Your task to perform on an android device: set default search engine in the chrome app Image 0: 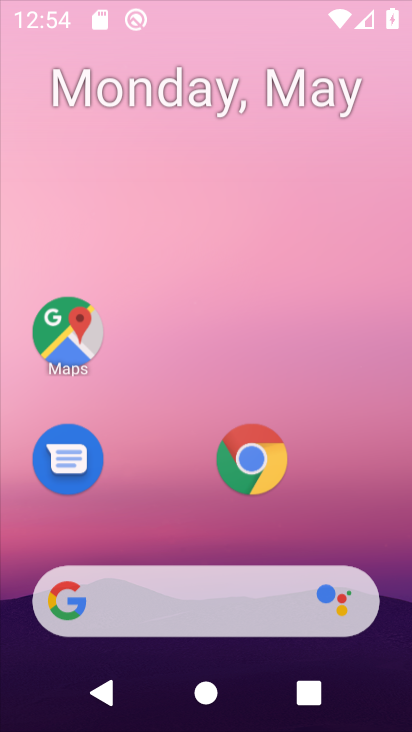
Step 0: click (308, 395)
Your task to perform on an android device: set default search engine in the chrome app Image 1: 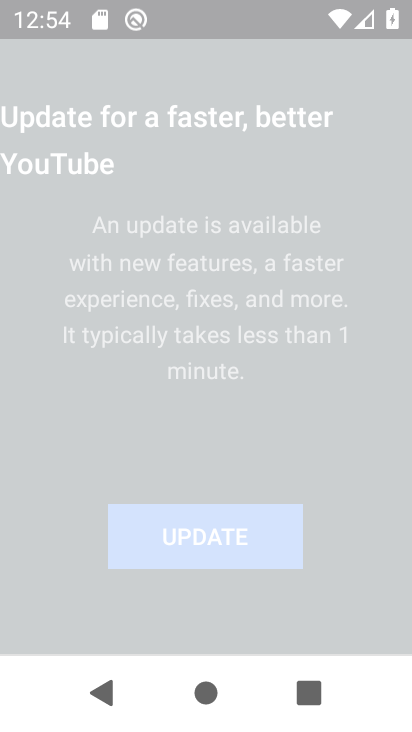
Step 1: drag from (190, 533) to (188, 127)
Your task to perform on an android device: set default search engine in the chrome app Image 2: 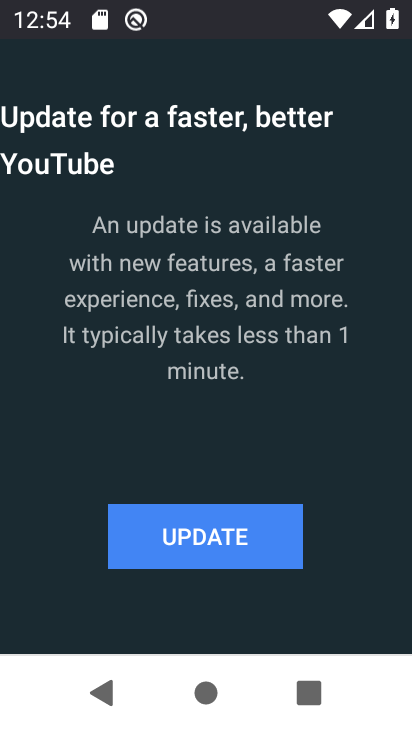
Step 2: press home button
Your task to perform on an android device: set default search engine in the chrome app Image 3: 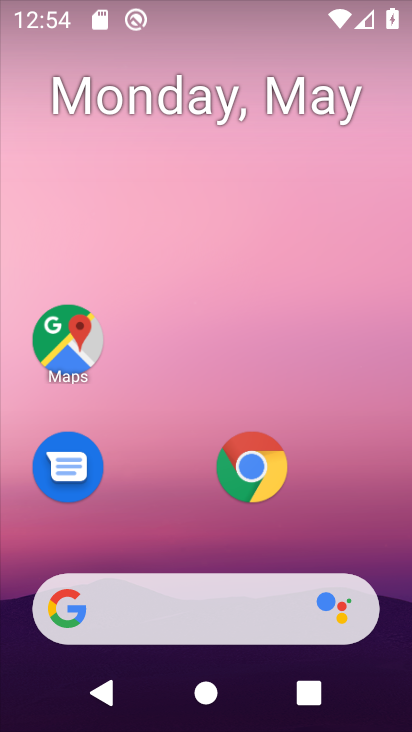
Step 3: drag from (178, 510) to (180, 153)
Your task to perform on an android device: set default search engine in the chrome app Image 4: 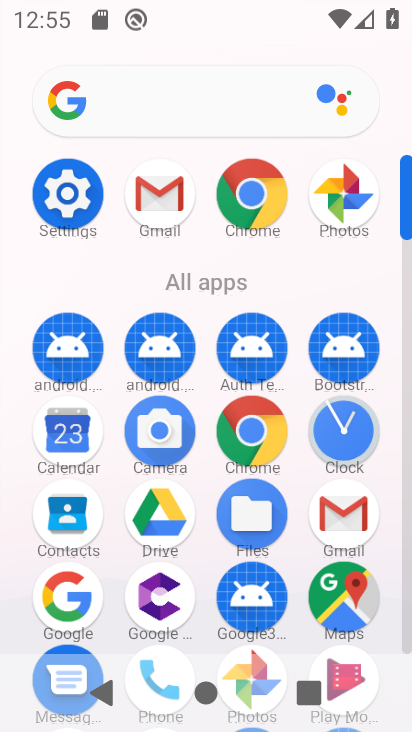
Step 4: click (246, 202)
Your task to perform on an android device: set default search engine in the chrome app Image 5: 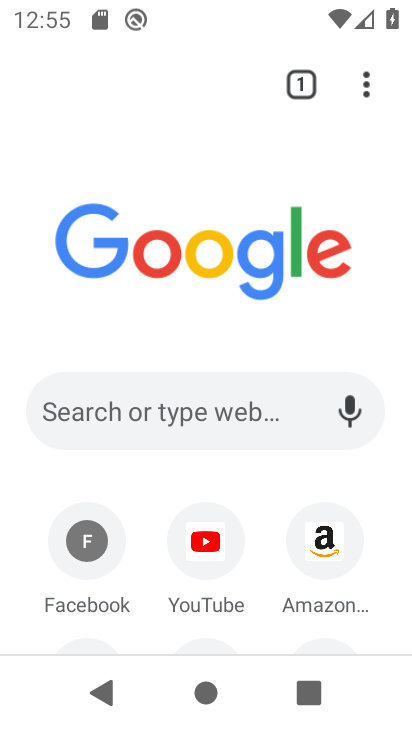
Step 5: drag from (273, 527) to (274, 237)
Your task to perform on an android device: set default search engine in the chrome app Image 6: 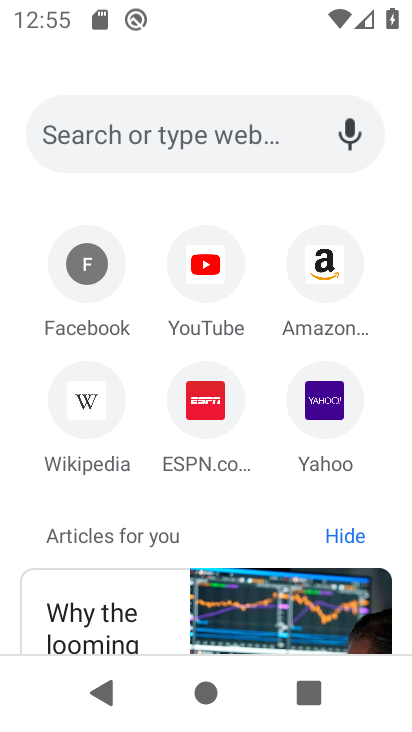
Step 6: drag from (279, 83) to (274, 502)
Your task to perform on an android device: set default search engine in the chrome app Image 7: 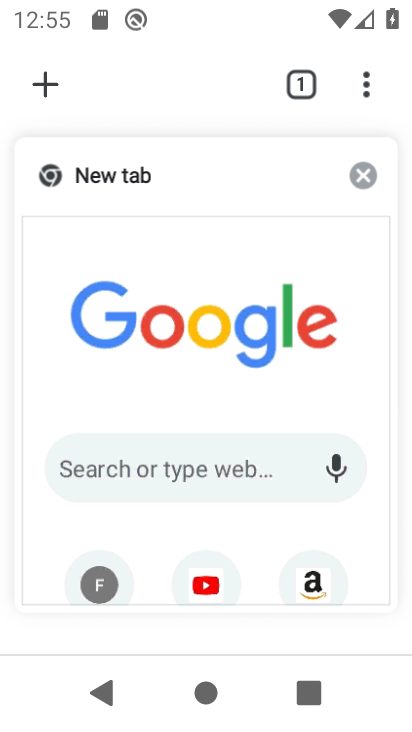
Step 7: click (242, 222)
Your task to perform on an android device: set default search engine in the chrome app Image 8: 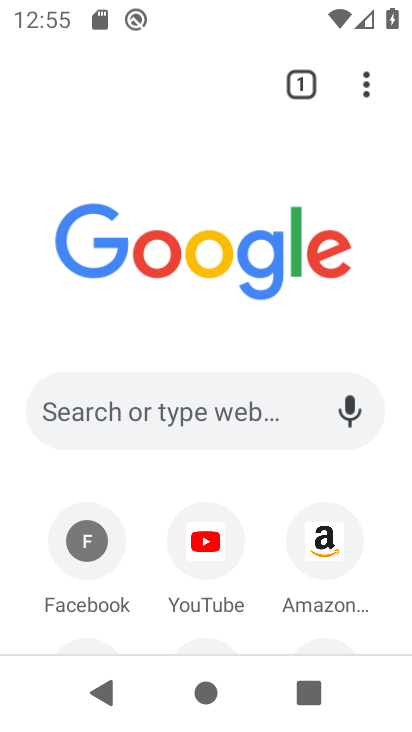
Step 8: click (364, 76)
Your task to perform on an android device: set default search engine in the chrome app Image 9: 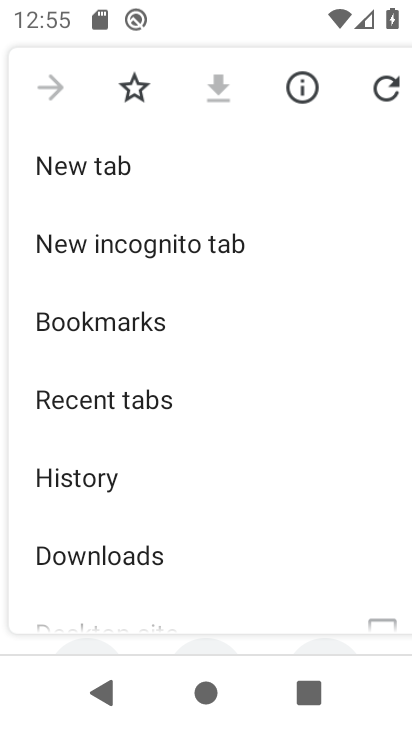
Step 9: drag from (233, 551) to (260, 217)
Your task to perform on an android device: set default search engine in the chrome app Image 10: 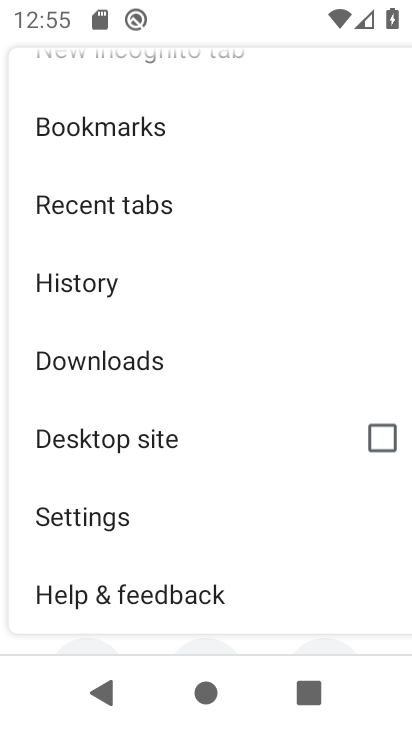
Step 10: drag from (199, 458) to (256, 218)
Your task to perform on an android device: set default search engine in the chrome app Image 11: 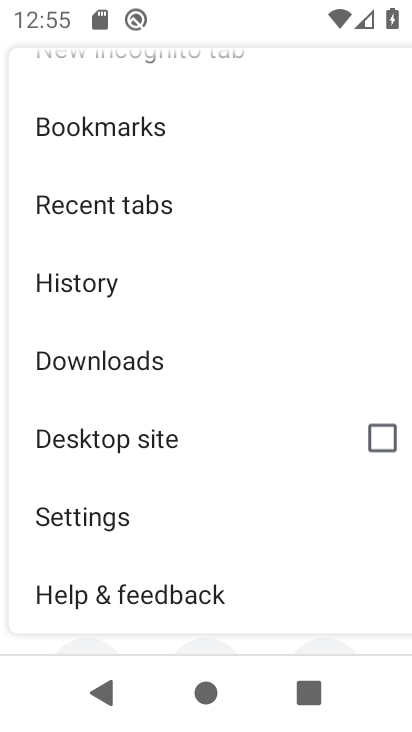
Step 11: click (117, 511)
Your task to perform on an android device: set default search engine in the chrome app Image 12: 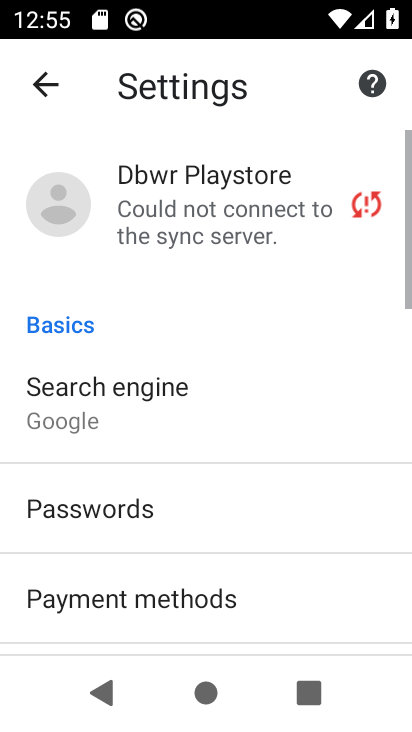
Step 12: click (120, 390)
Your task to perform on an android device: set default search engine in the chrome app Image 13: 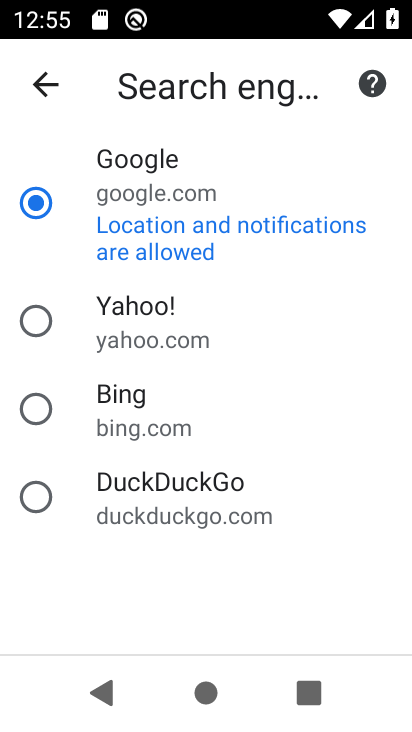
Step 13: drag from (226, 568) to (318, 292)
Your task to perform on an android device: set default search engine in the chrome app Image 14: 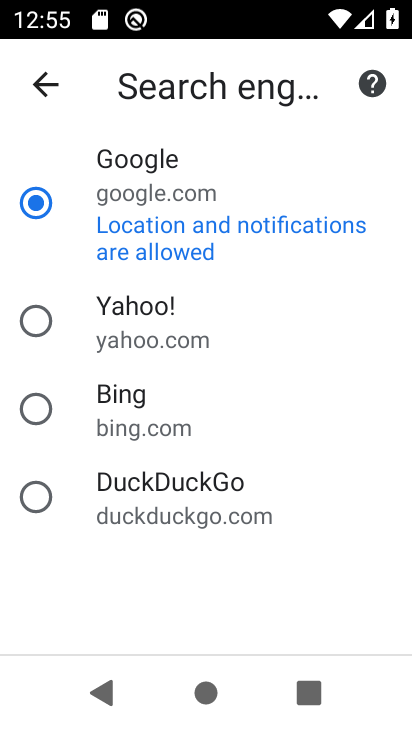
Step 14: drag from (208, 580) to (257, 362)
Your task to perform on an android device: set default search engine in the chrome app Image 15: 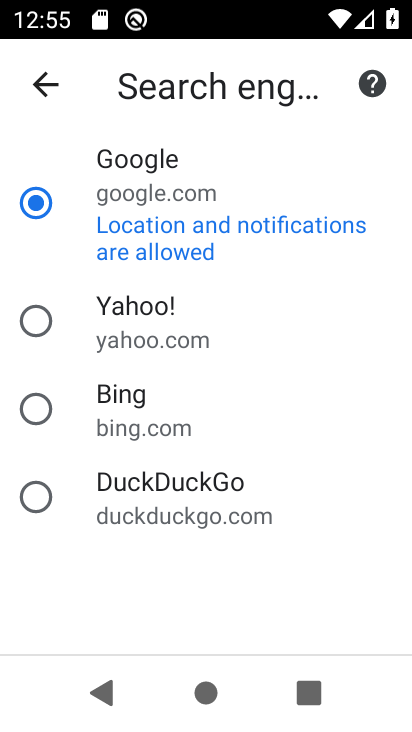
Step 15: drag from (299, 506) to (338, 318)
Your task to perform on an android device: set default search engine in the chrome app Image 16: 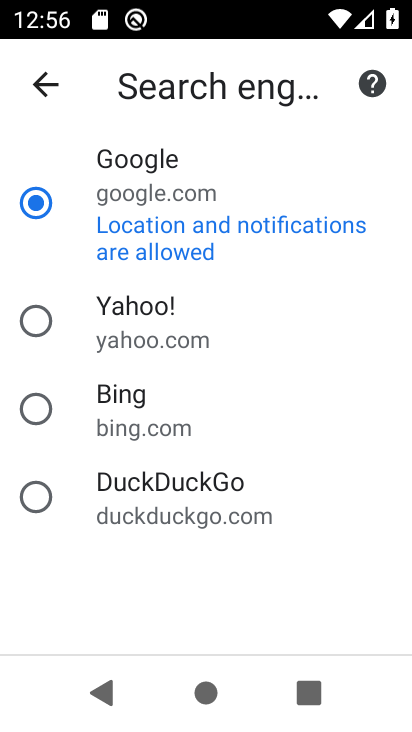
Step 16: drag from (219, 574) to (220, 272)
Your task to perform on an android device: set default search engine in the chrome app Image 17: 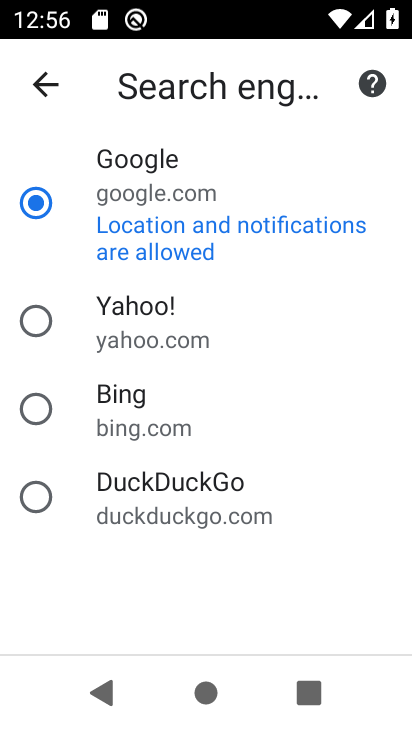
Step 17: drag from (240, 574) to (285, 259)
Your task to perform on an android device: set default search engine in the chrome app Image 18: 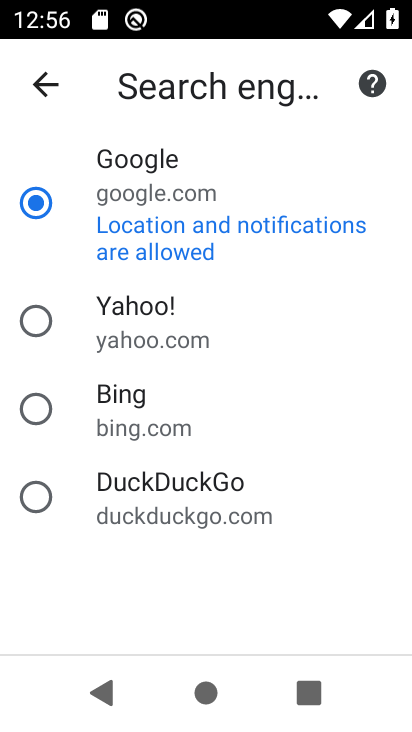
Step 18: click (114, 490)
Your task to perform on an android device: set default search engine in the chrome app Image 19: 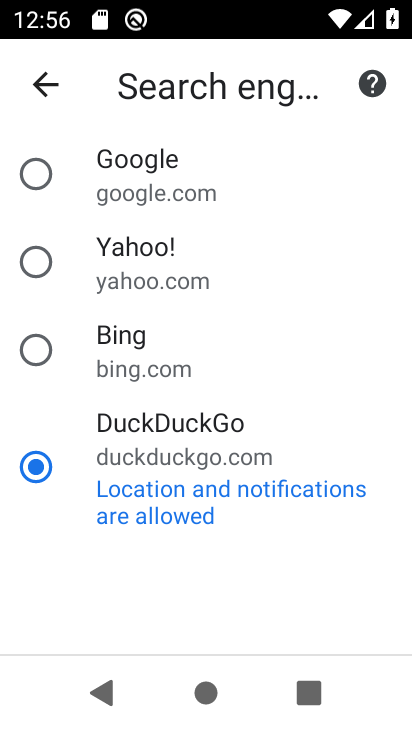
Step 19: click (85, 205)
Your task to perform on an android device: set default search engine in the chrome app Image 20: 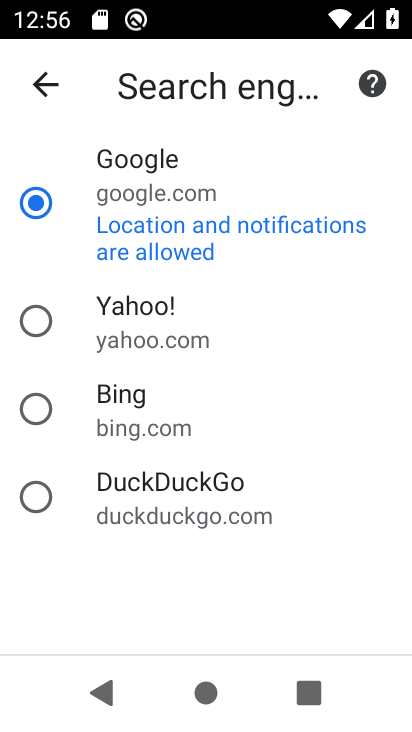
Step 20: task complete